Your task to perform on an android device: remove spam from my inbox in the gmail app Image 0: 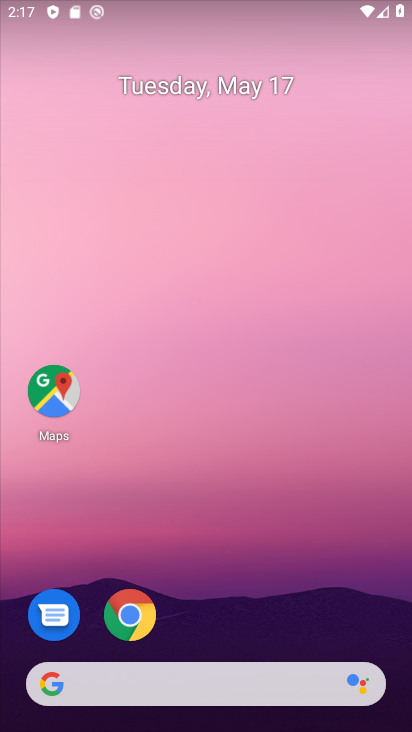
Step 0: drag from (197, 729) to (214, 241)
Your task to perform on an android device: remove spam from my inbox in the gmail app Image 1: 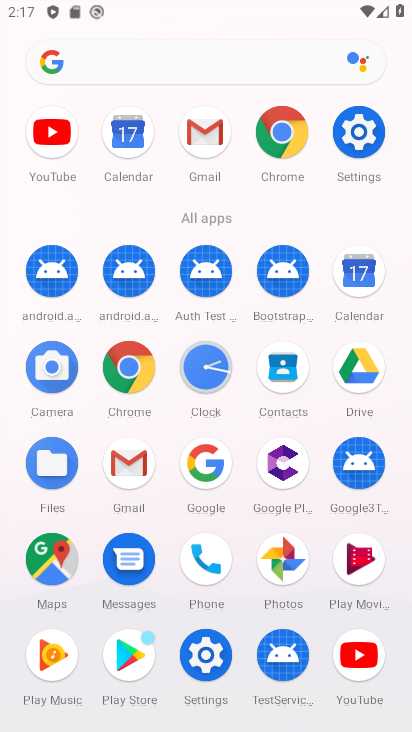
Step 1: click (122, 459)
Your task to perform on an android device: remove spam from my inbox in the gmail app Image 2: 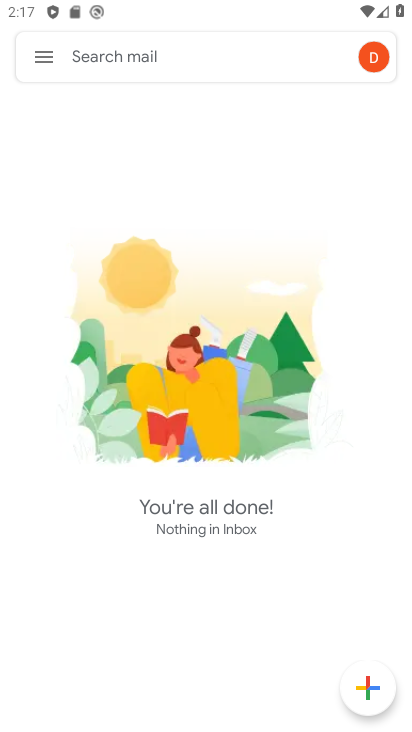
Step 2: task complete